Your task to perform on an android device: Check the weather Image 0: 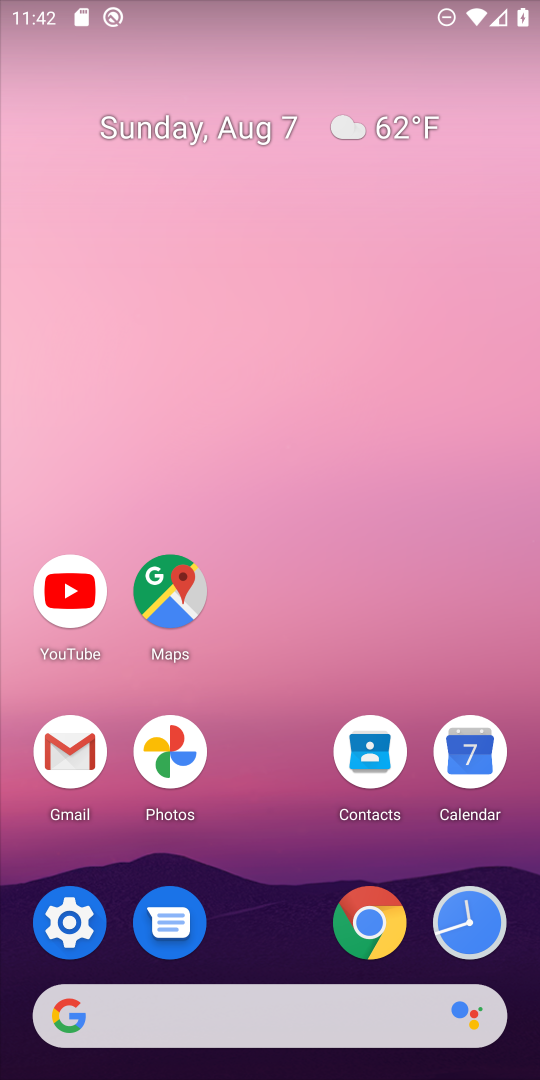
Step 0: click (226, 1020)
Your task to perform on an android device: Check the weather Image 1: 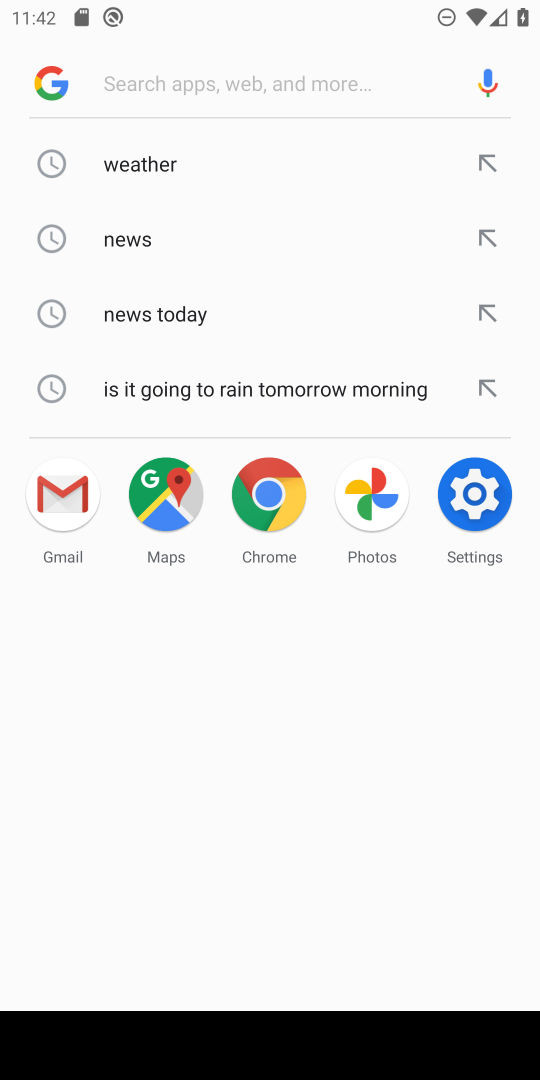
Step 1: click (126, 153)
Your task to perform on an android device: Check the weather Image 2: 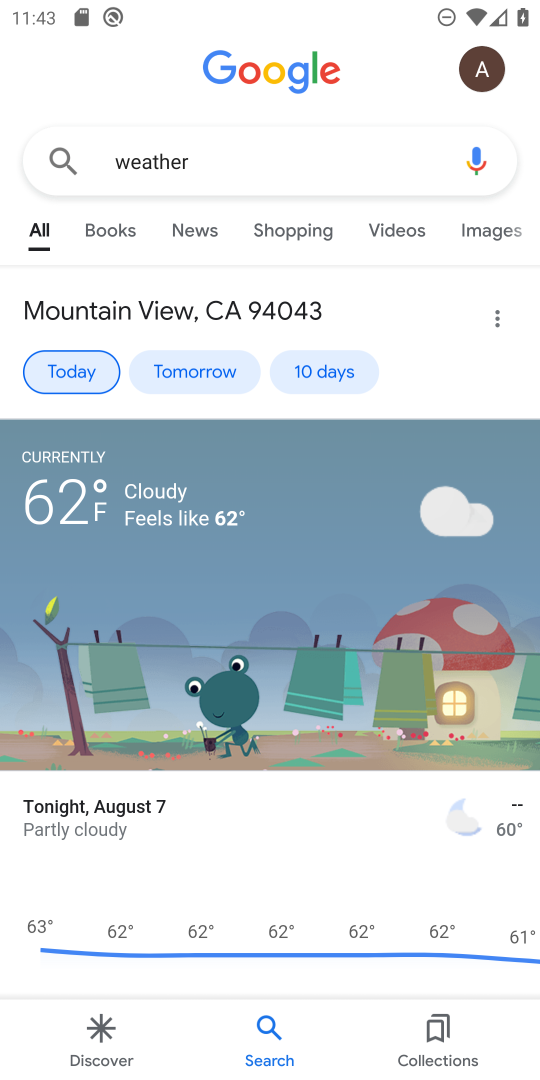
Step 2: task complete